Your task to perform on an android device: Open the calendar and show me this week's events Image 0: 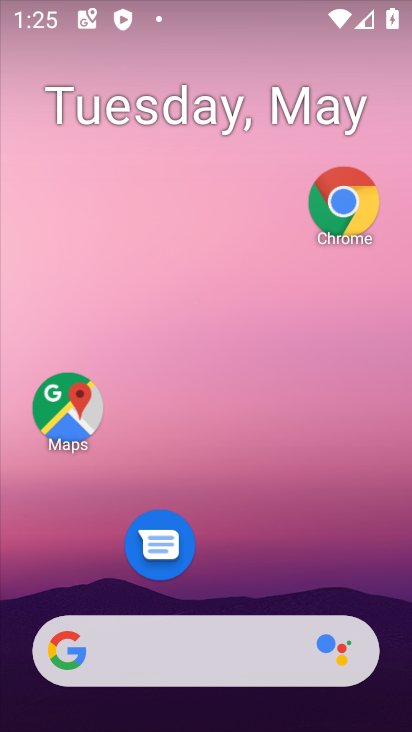
Step 0: click (143, 98)
Your task to perform on an android device: Open the calendar and show me this week's events Image 1: 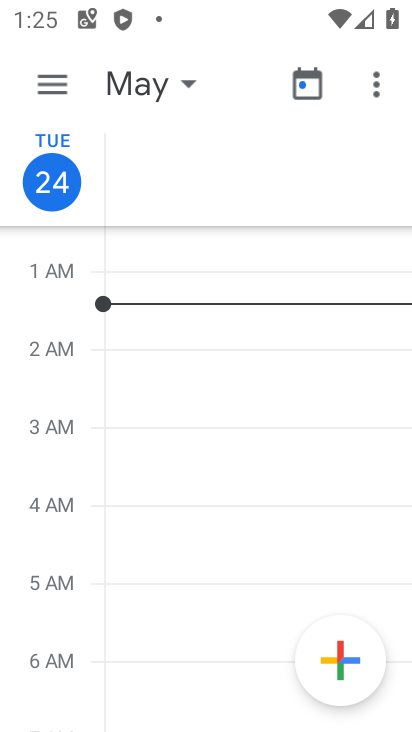
Step 1: click (147, 95)
Your task to perform on an android device: Open the calendar and show me this week's events Image 2: 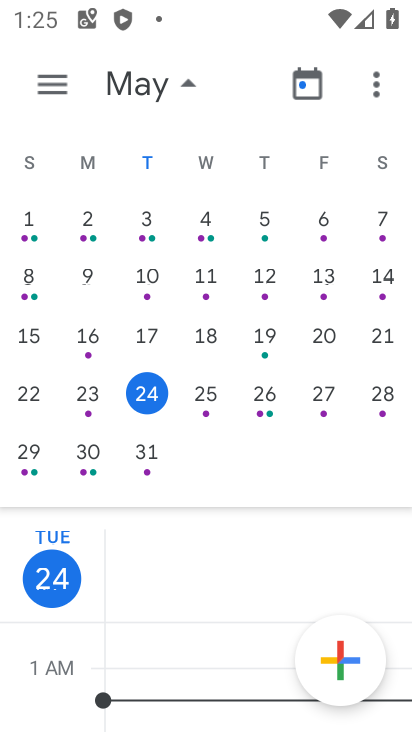
Step 2: click (64, 91)
Your task to perform on an android device: Open the calendar and show me this week's events Image 3: 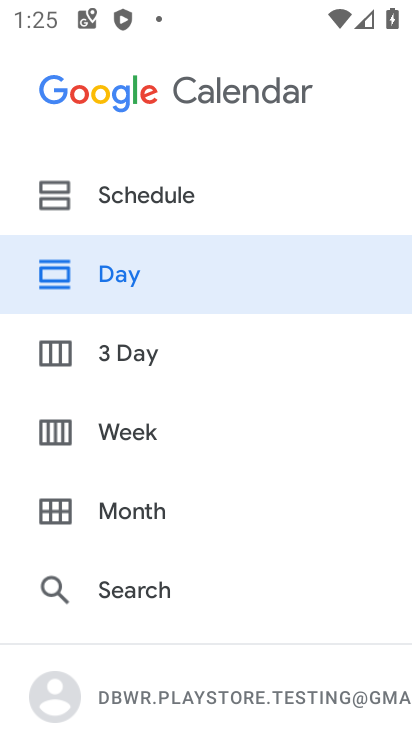
Step 3: drag from (91, 695) to (166, 192)
Your task to perform on an android device: Open the calendar and show me this week's events Image 4: 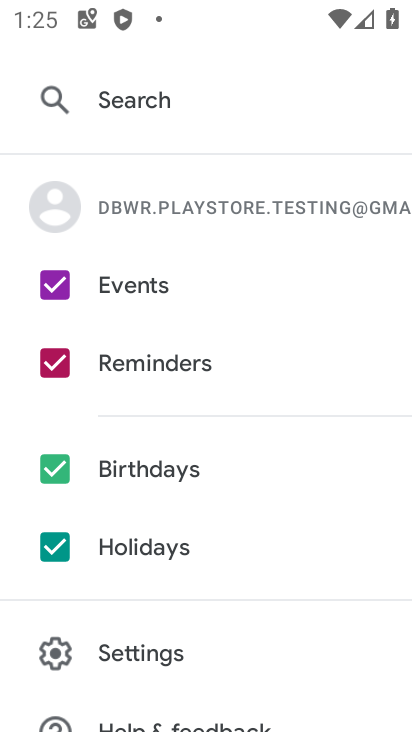
Step 4: click (45, 473)
Your task to perform on an android device: Open the calendar and show me this week's events Image 5: 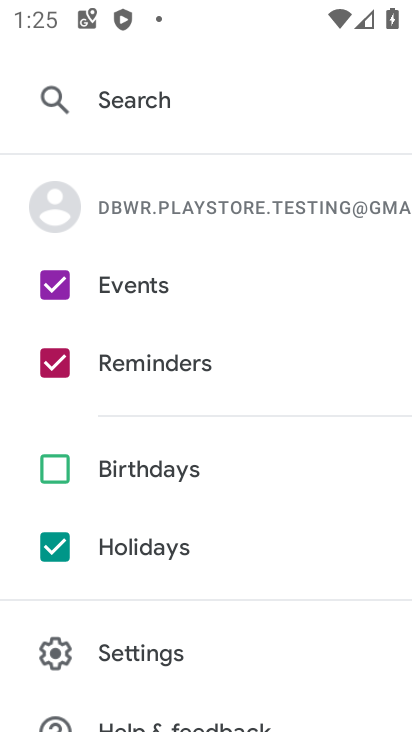
Step 5: click (59, 362)
Your task to perform on an android device: Open the calendar and show me this week's events Image 6: 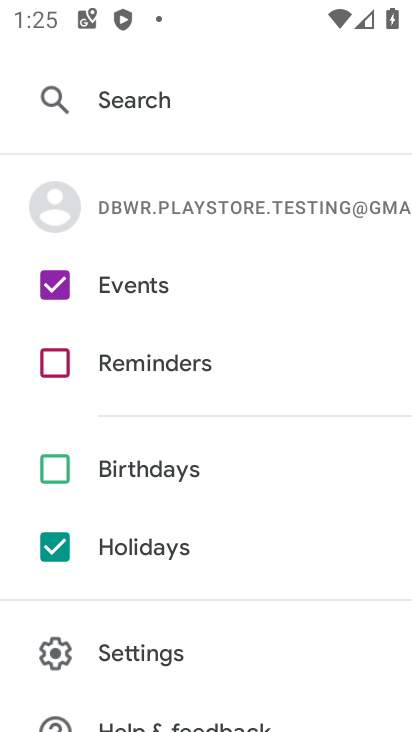
Step 6: click (53, 554)
Your task to perform on an android device: Open the calendar and show me this week's events Image 7: 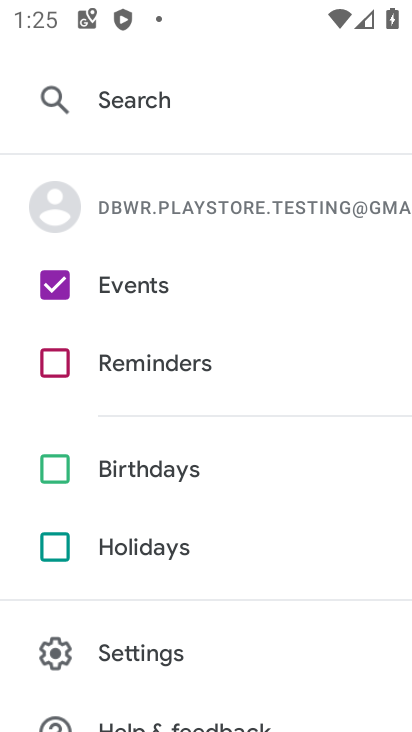
Step 7: drag from (213, 148) to (230, 590)
Your task to perform on an android device: Open the calendar and show me this week's events Image 8: 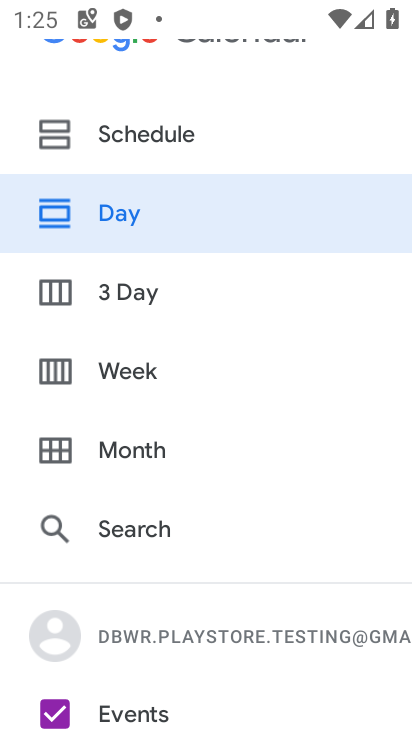
Step 8: click (162, 385)
Your task to perform on an android device: Open the calendar and show me this week's events Image 9: 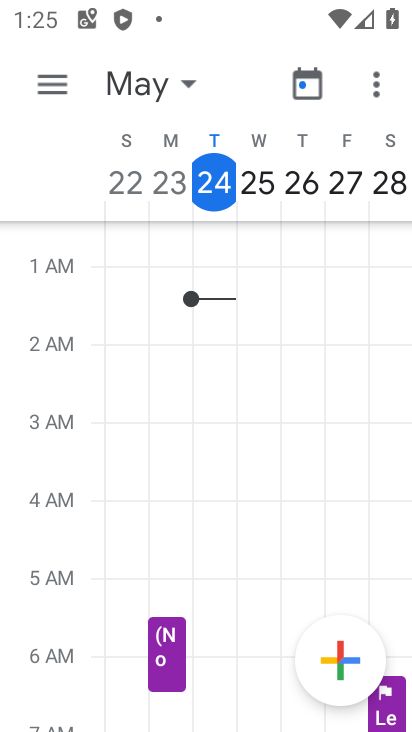
Step 9: task complete